Your task to perform on an android device: show emergency info Image 0: 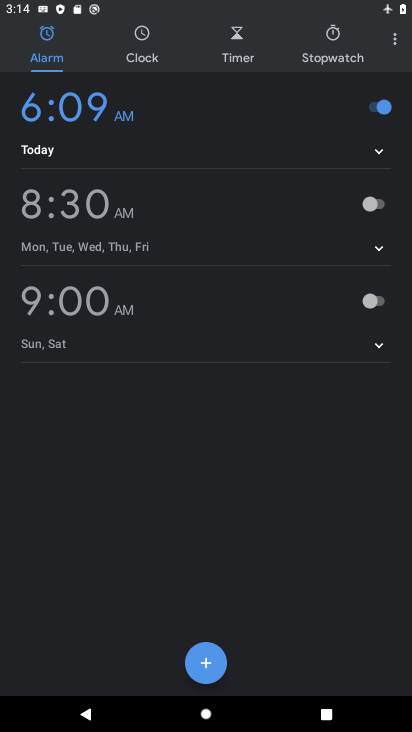
Step 0: press home button
Your task to perform on an android device: show emergency info Image 1: 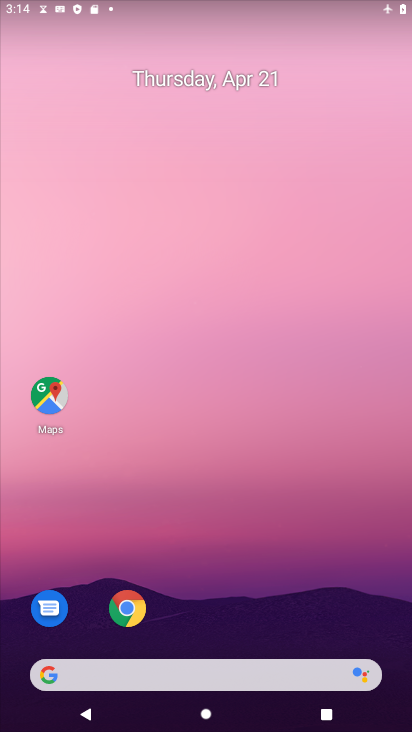
Step 1: drag from (252, 540) to (218, 141)
Your task to perform on an android device: show emergency info Image 2: 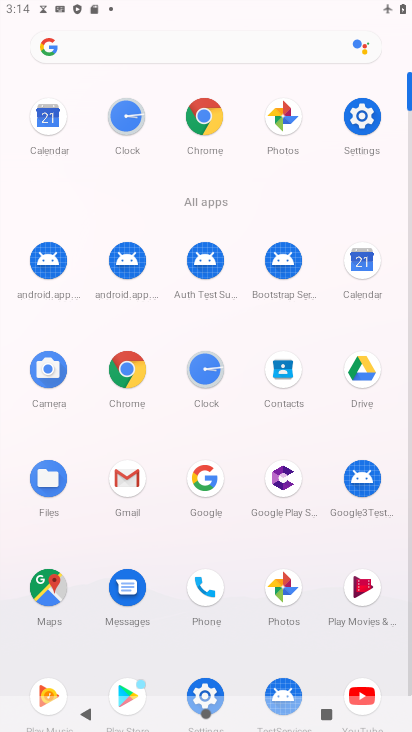
Step 2: click (363, 126)
Your task to perform on an android device: show emergency info Image 3: 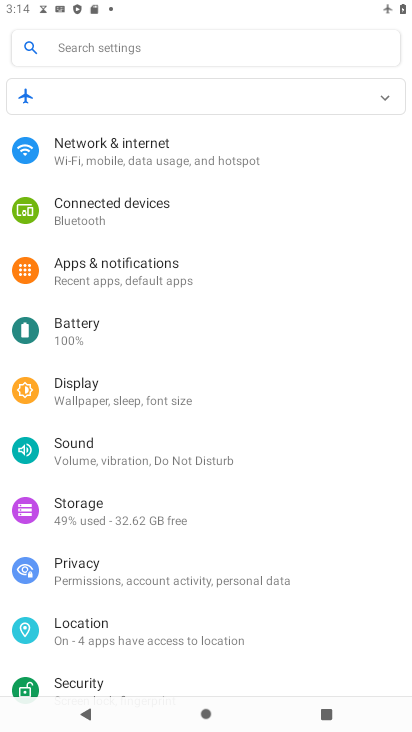
Step 3: drag from (193, 567) to (121, 161)
Your task to perform on an android device: show emergency info Image 4: 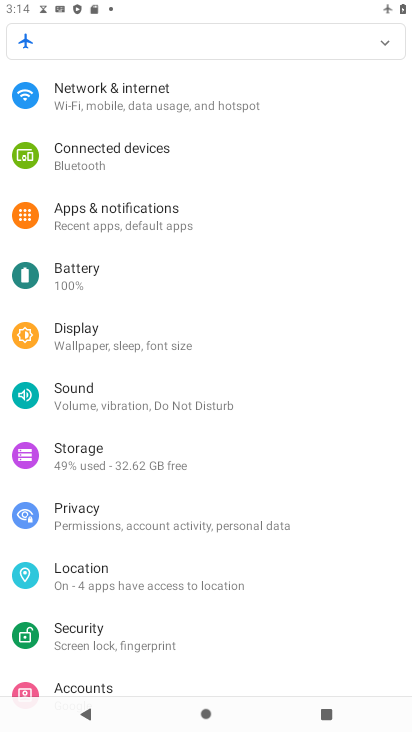
Step 4: drag from (219, 604) to (198, 213)
Your task to perform on an android device: show emergency info Image 5: 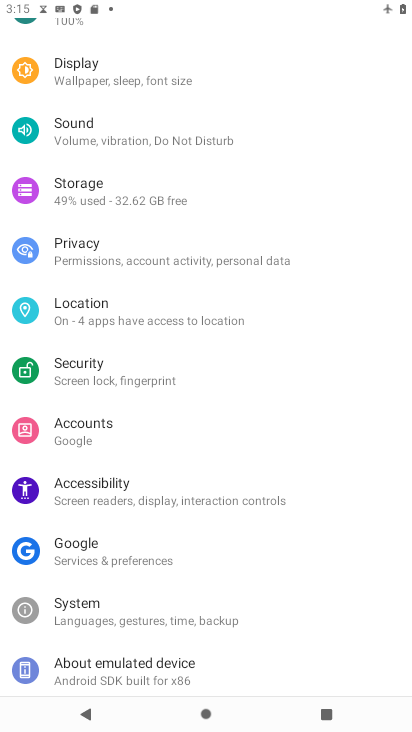
Step 5: click (246, 676)
Your task to perform on an android device: show emergency info Image 6: 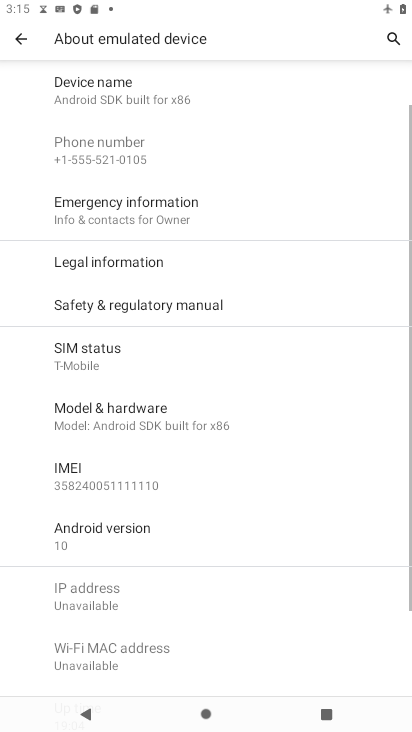
Step 6: click (212, 211)
Your task to perform on an android device: show emergency info Image 7: 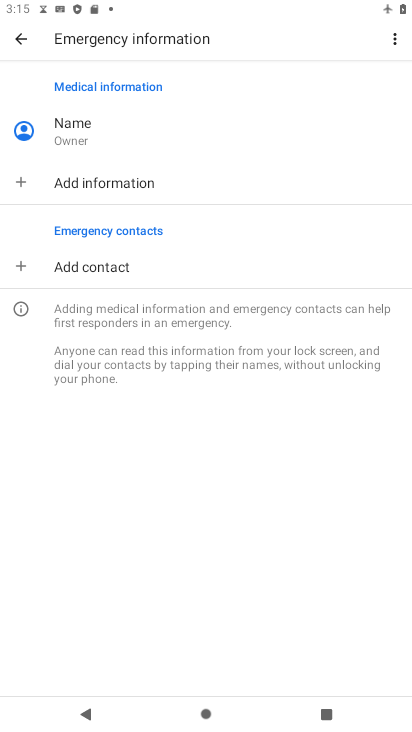
Step 7: task complete